Your task to perform on an android device: change the clock display to show seconds Image 0: 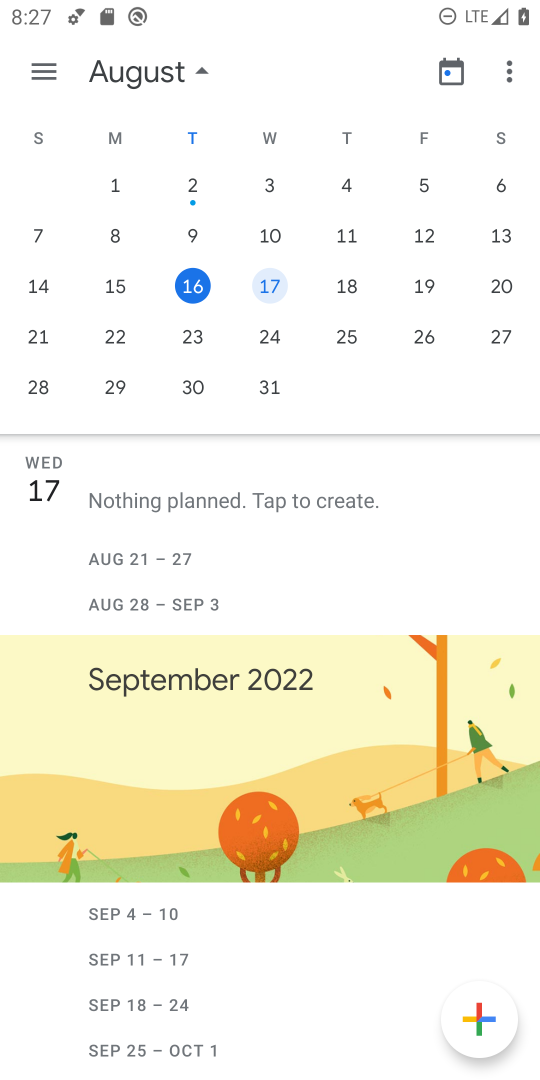
Step 0: press home button
Your task to perform on an android device: change the clock display to show seconds Image 1: 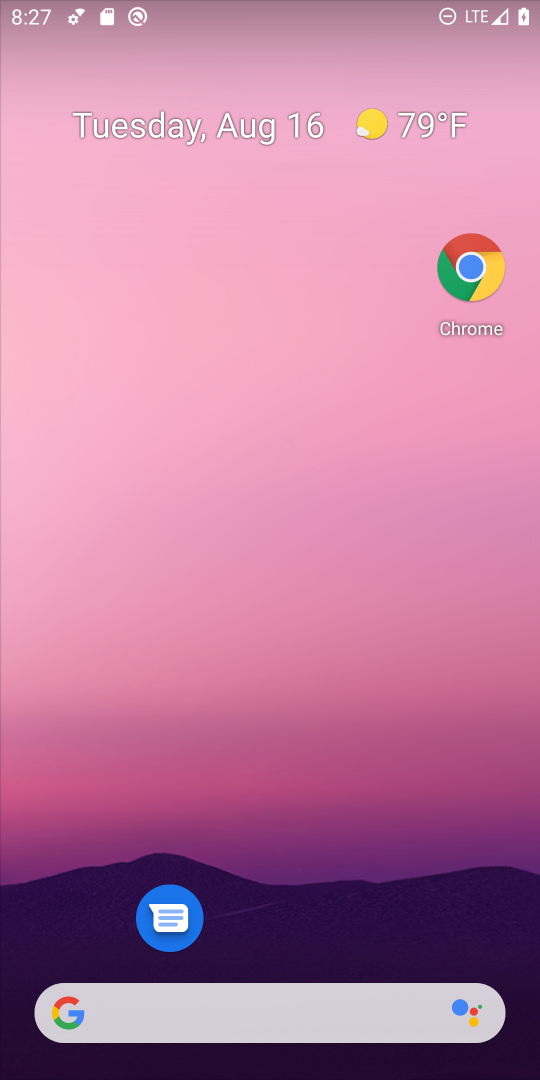
Step 1: drag from (325, 1022) to (323, 180)
Your task to perform on an android device: change the clock display to show seconds Image 2: 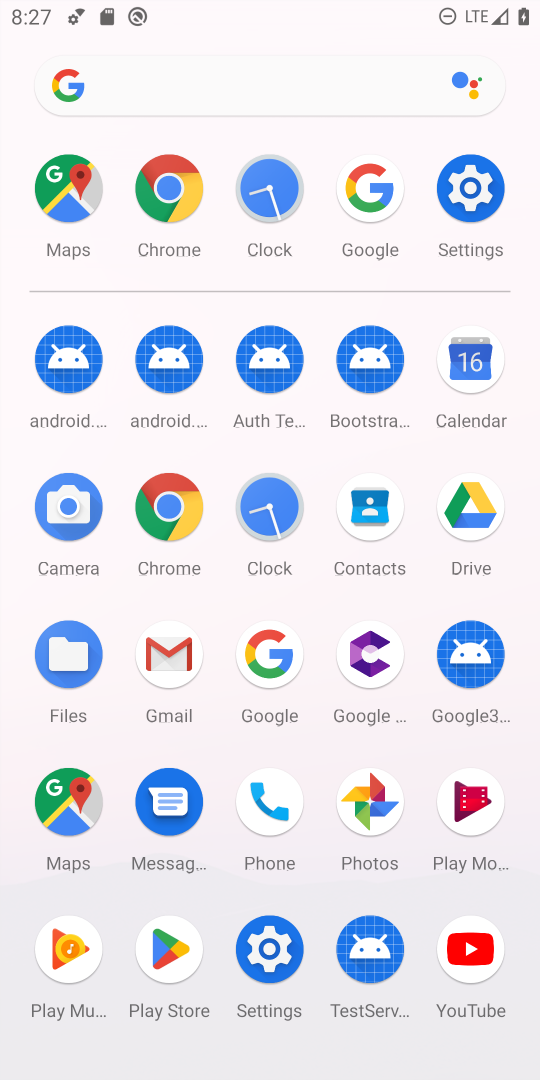
Step 2: click (289, 524)
Your task to perform on an android device: change the clock display to show seconds Image 3: 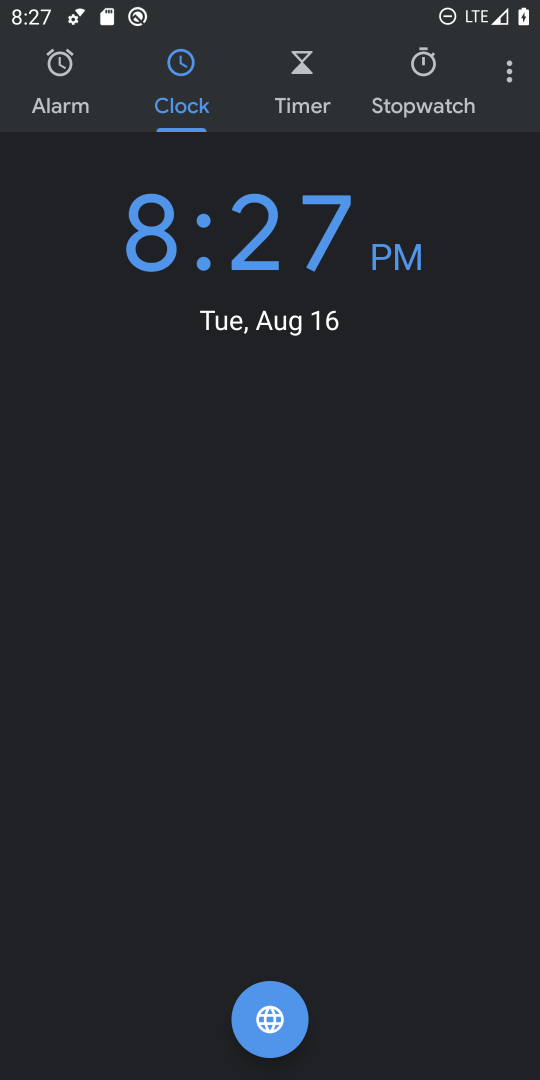
Step 3: click (516, 93)
Your task to perform on an android device: change the clock display to show seconds Image 4: 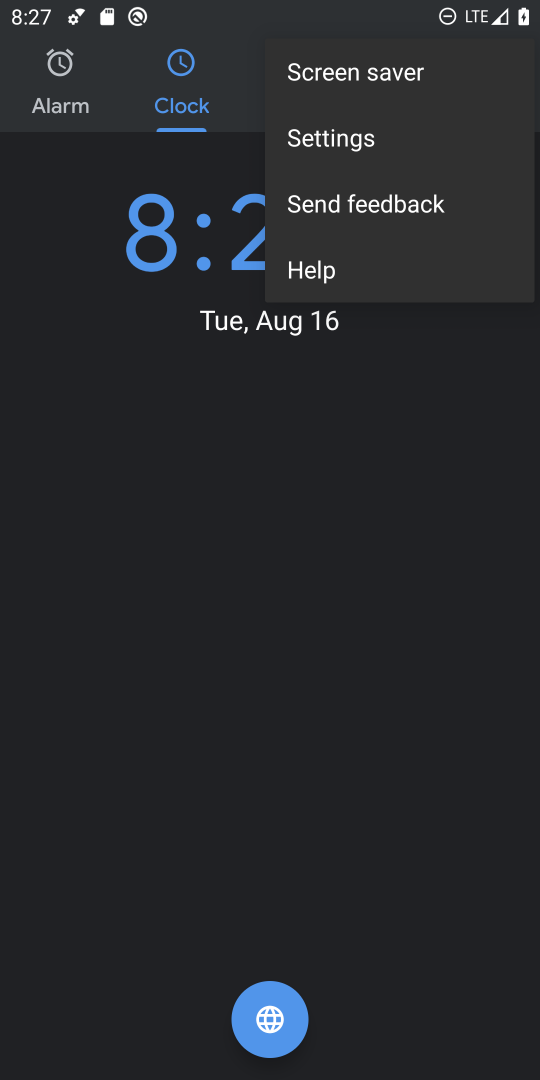
Step 4: click (320, 146)
Your task to perform on an android device: change the clock display to show seconds Image 5: 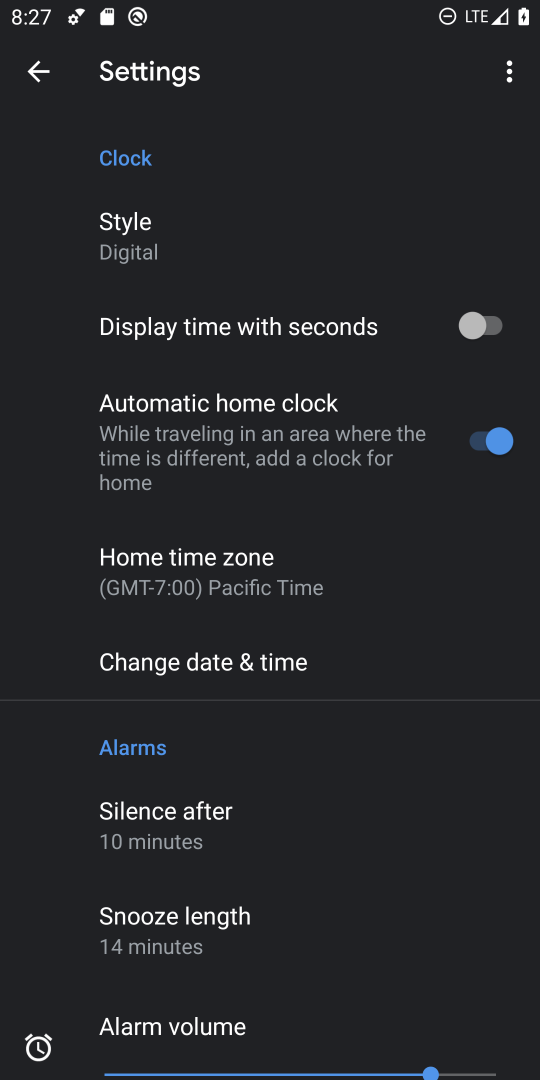
Step 5: click (276, 335)
Your task to perform on an android device: change the clock display to show seconds Image 6: 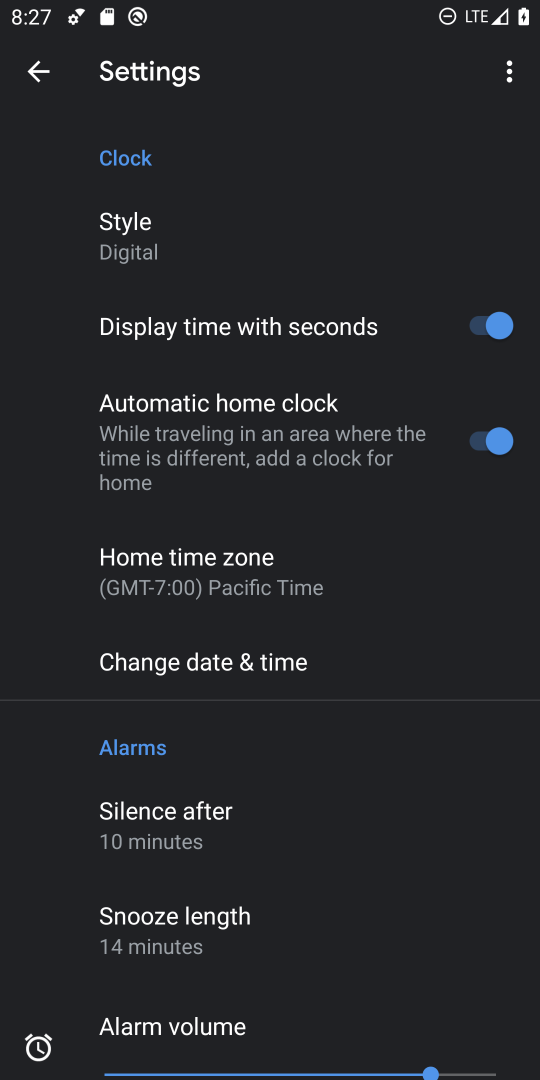
Step 6: task complete